Your task to perform on an android device: open sync settings in chrome Image 0: 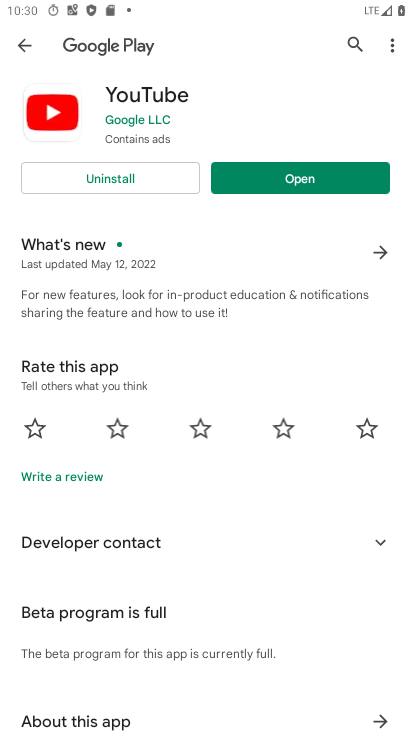
Step 0: press home button
Your task to perform on an android device: open sync settings in chrome Image 1: 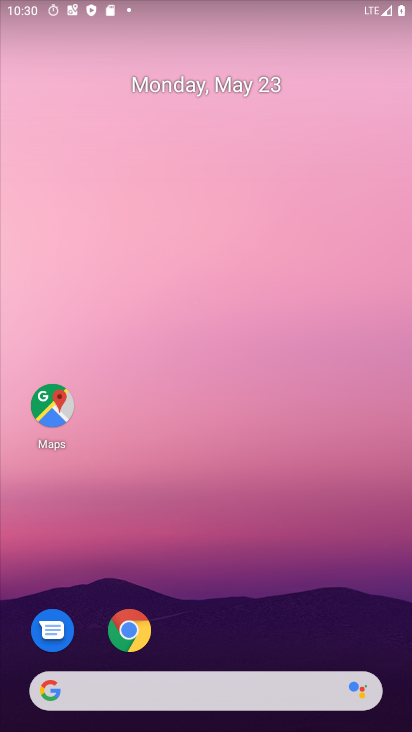
Step 1: click (133, 626)
Your task to perform on an android device: open sync settings in chrome Image 2: 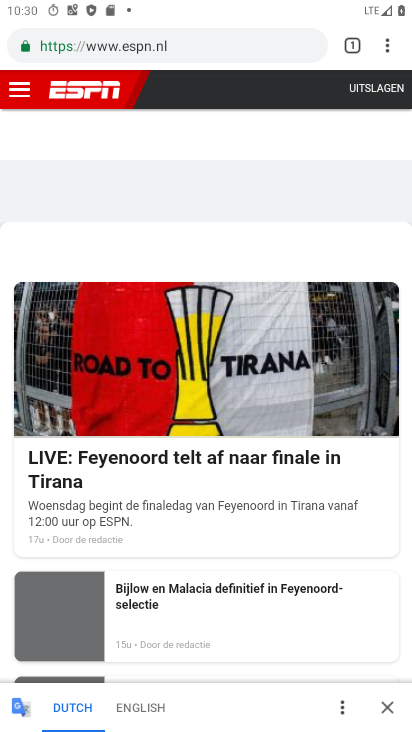
Step 2: click (387, 51)
Your task to perform on an android device: open sync settings in chrome Image 3: 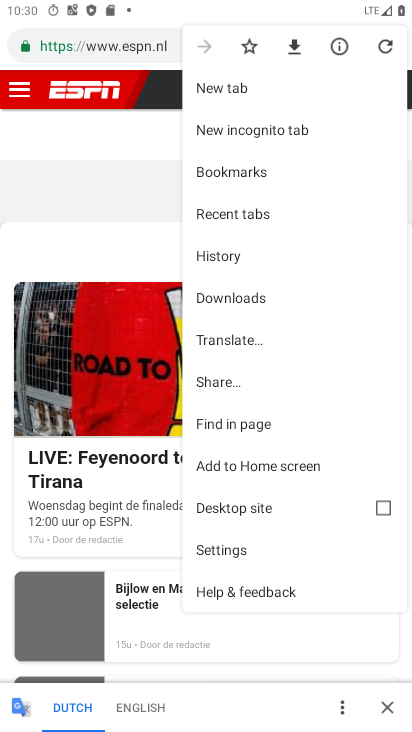
Step 3: click (217, 547)
Your task to perform on an android device: open sync settings in chrome Image 4: 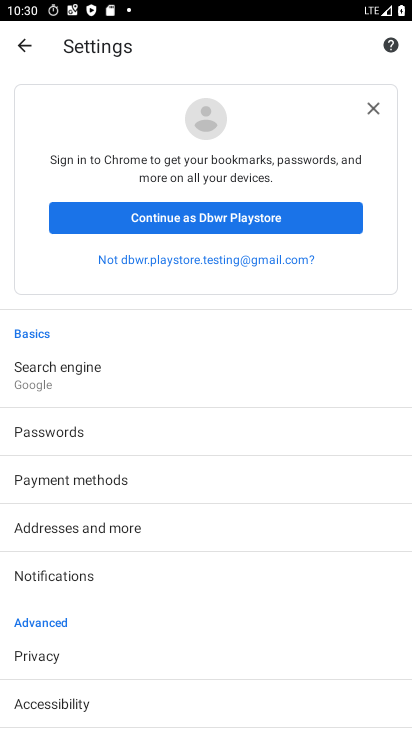
Step 4: click (189, 218)
Your task to perform on an android device: open sync settings in chrome Image 5: 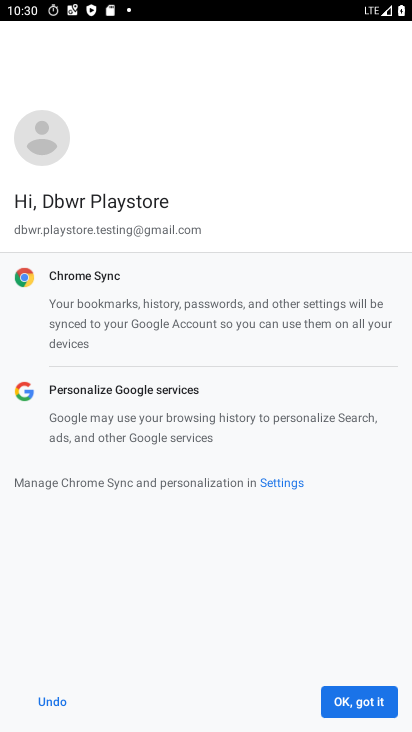
Step 5: click (370, 709)
Your task to perform on an android device: open sync settings in chrome Image 6: 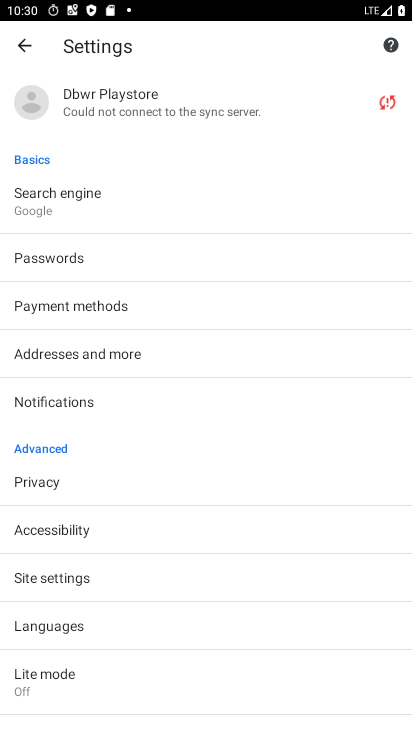
Step 6: click (120, 103)
Your task to perform on an android device: open sync settings in chrome Image 7: 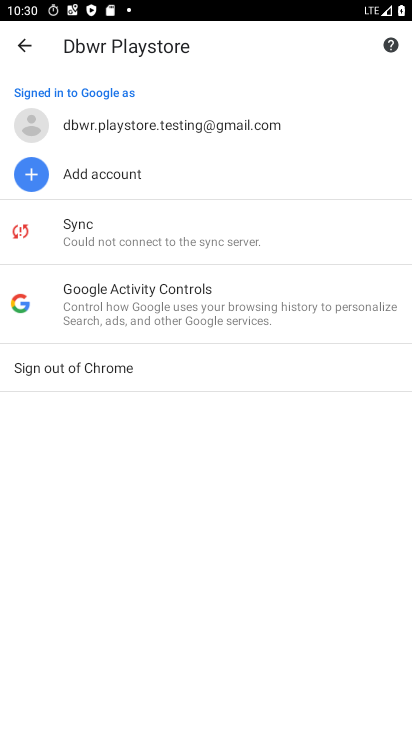
Step 7: click (78, 234)
Your task to perform on an android device: open sync settings in chrome Image 8: 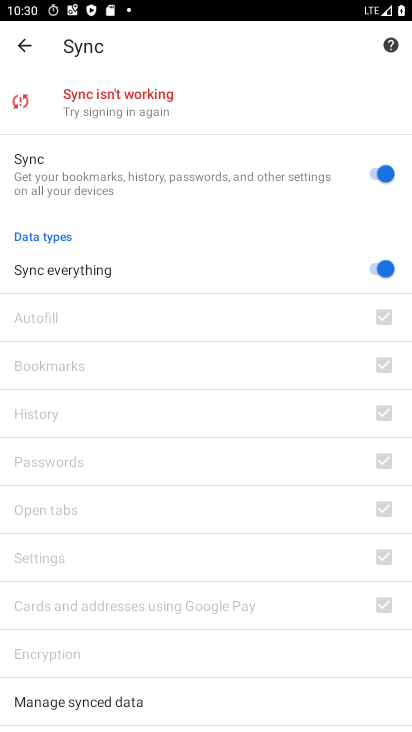
Step 8: task complete